Your task to perform on an android device: Open accessibility settings Image 0: 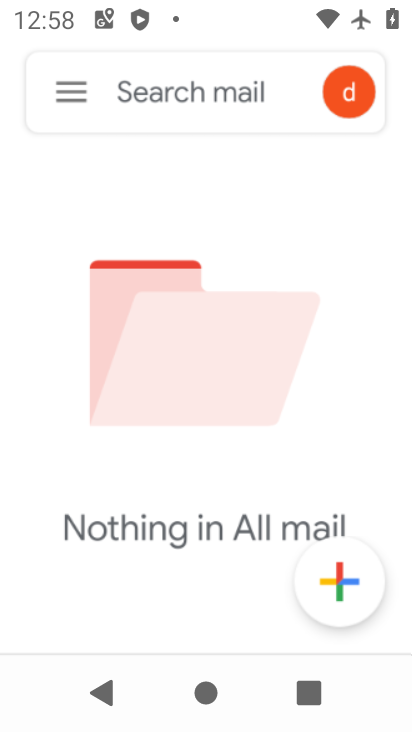
Step 0: drag from (210, 516) to (229, 208)
Your task to perform on an android device: Open accessibility settings Image 1: 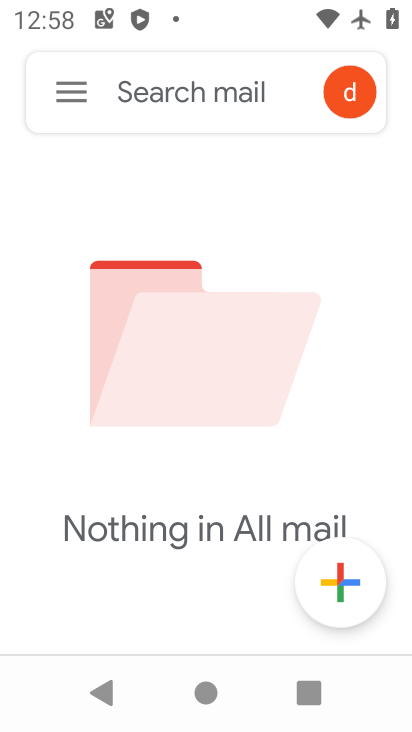
Step 1: press home button
Your task to perform on an android device: Open accessibility settings Image 2: 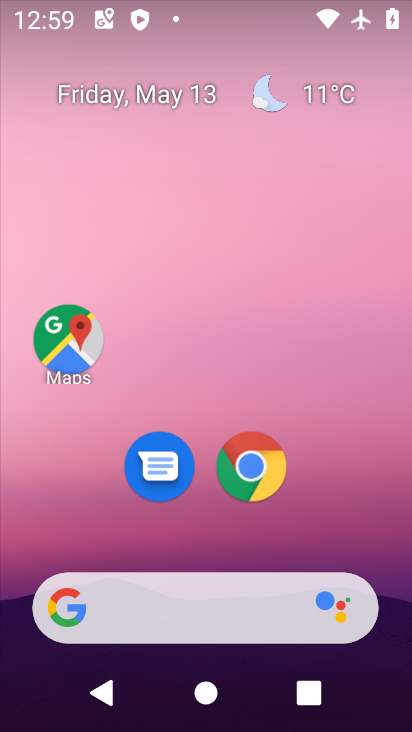
Step 2: drag from (191, 538) to (291, 86)
Your task to perform on an android device: Open accessibility settings Image 3: 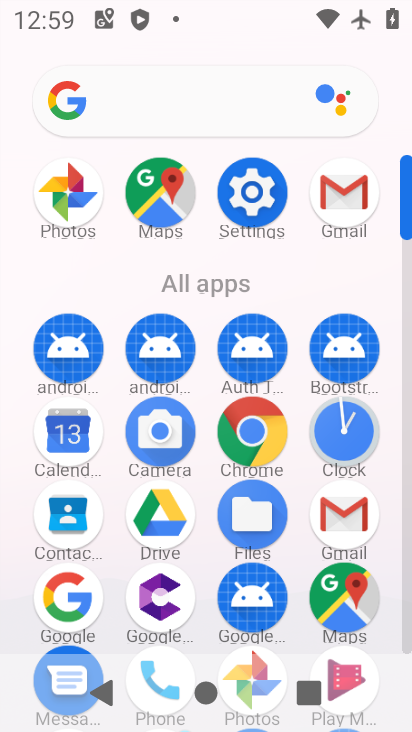
Step 3: click (248, 189)
Your task to perform on an android device: Open accessibility settings Image 4: 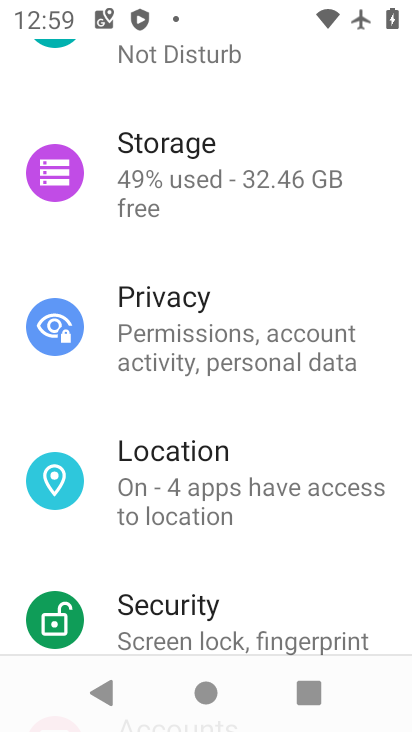
Step 4: drag from (166, 522) to (169, 241)
Your task to perform on an android device: Open accessibility settings Image 5: 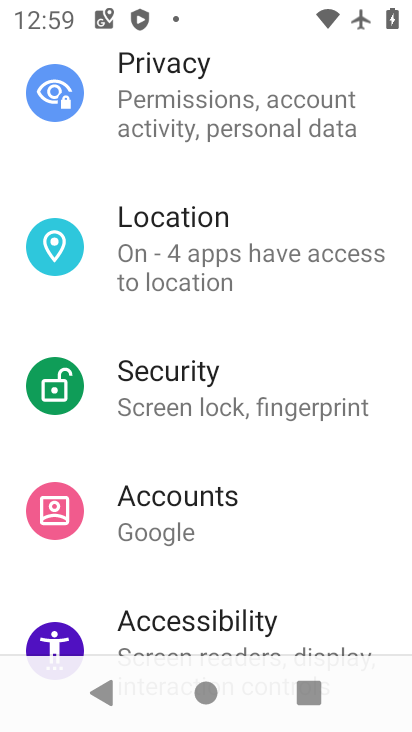
Step 5: click (187, 616)
Your task to perform on an android device: Open accessibility settings Image 6: 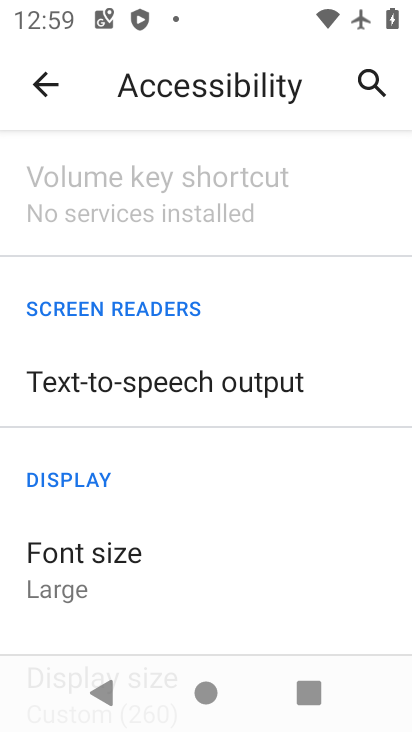
Step 6: task complete